Your task to perform on an android device: toggle location history Image 0: 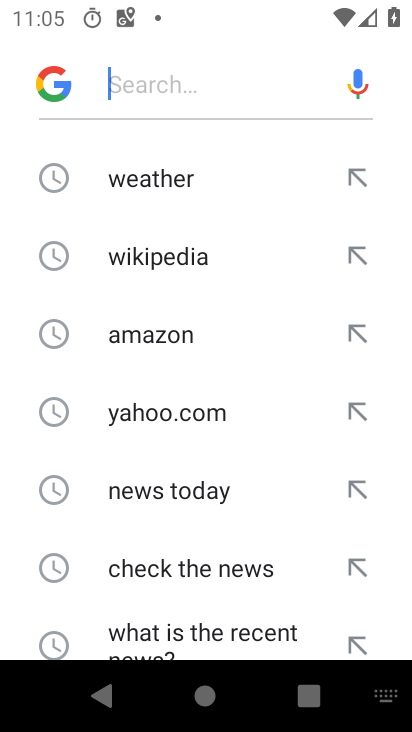
Step 0: press home button
Your task to perform on an android device: toggle location history Image 1: 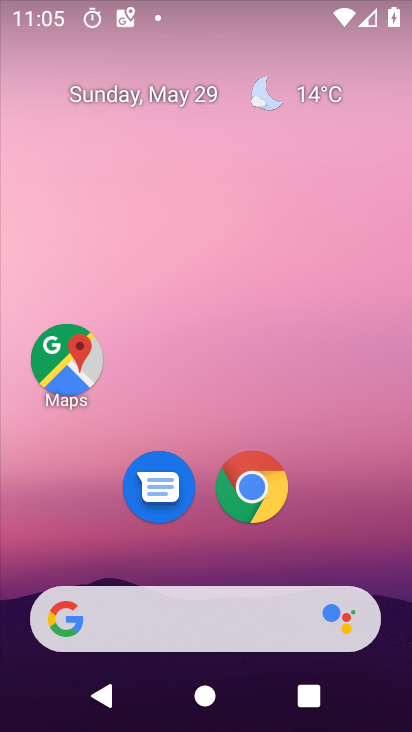
Step 1: drag from (395, 690) to (352, 136)
Your task to perform on an android device: toggle location history Image 2: 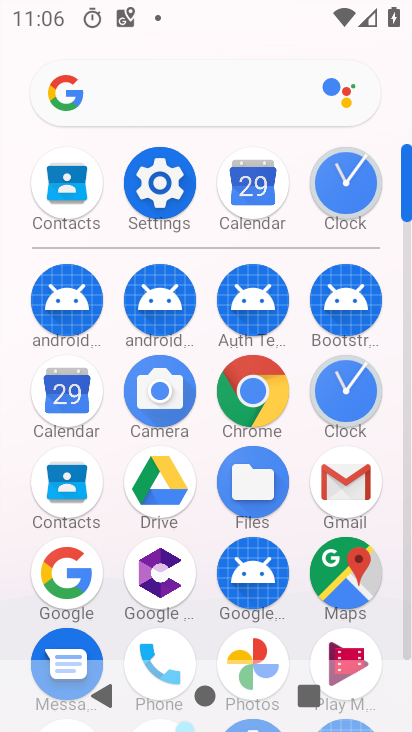
Step 2: click (159, 194)
Your task to perform on an android device: toggle location history Image 3: 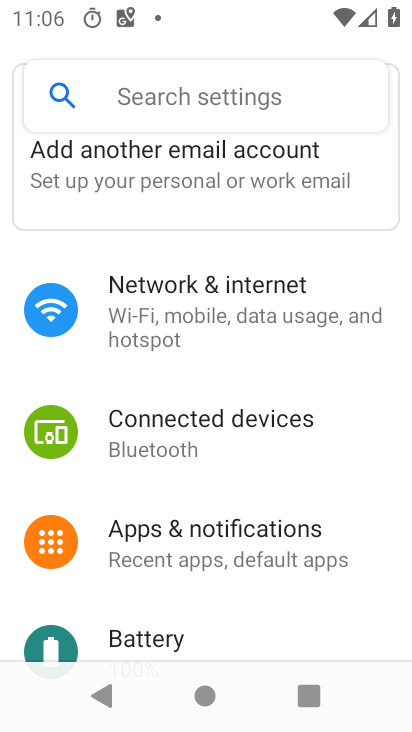
Step 3: drag from (202, 610) to (212, 276)
Your task to perform on an android device: toggle location history Image 4: 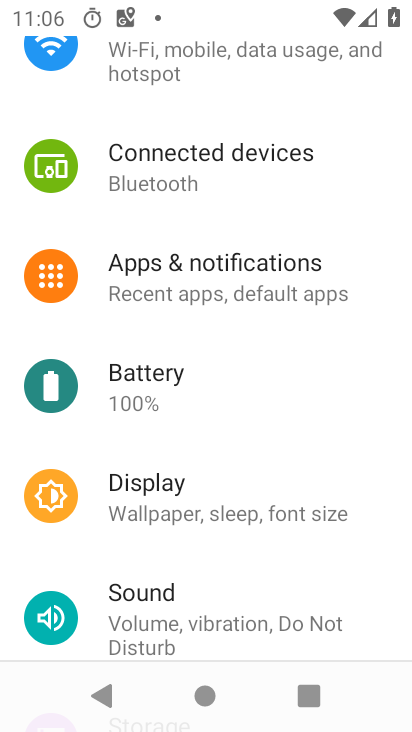
Step 4: drag from (209, 621) to (228, 289)
Your task to perform on an android device: toggle location history Image 5: 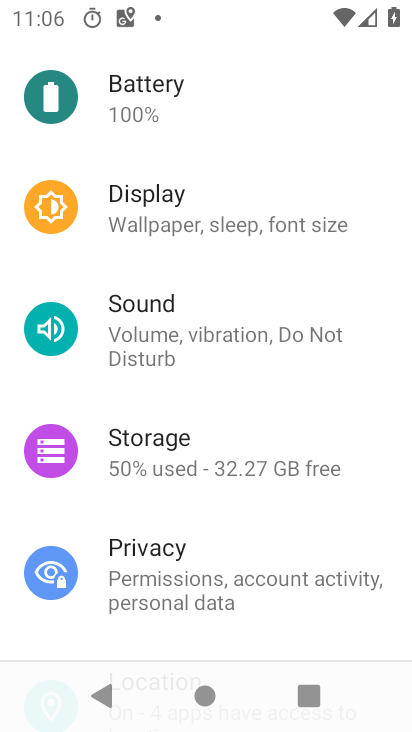
Step 5: drag from (189, 422) to (190, 261)
Your task to perform on an android device: toggle location history Image 6: 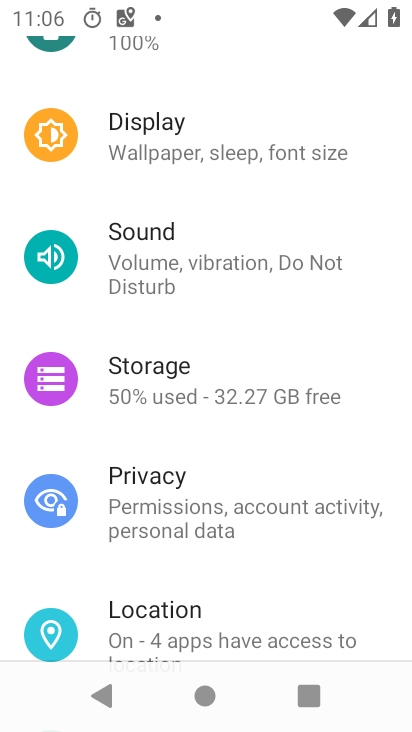
Step 6: click (170, 606)
Your task to perform on an android device: toggle location history Image 7: 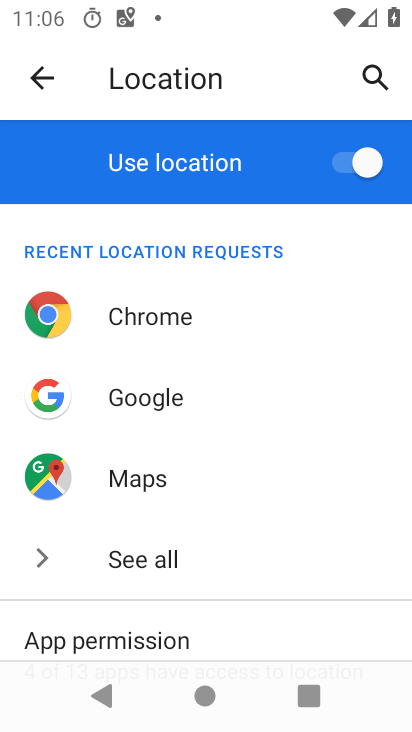
Step 7: drag from (248, 604) to (223, 292)
Your task to perform on an android device: toggle location history Image 8: 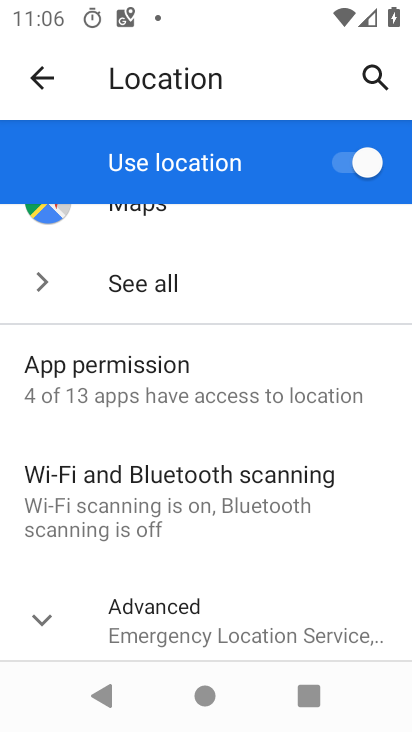
Step 8: drag from (234, 609) to (236, 325)
Your task to perform on an android device: toggle location history Image 9: 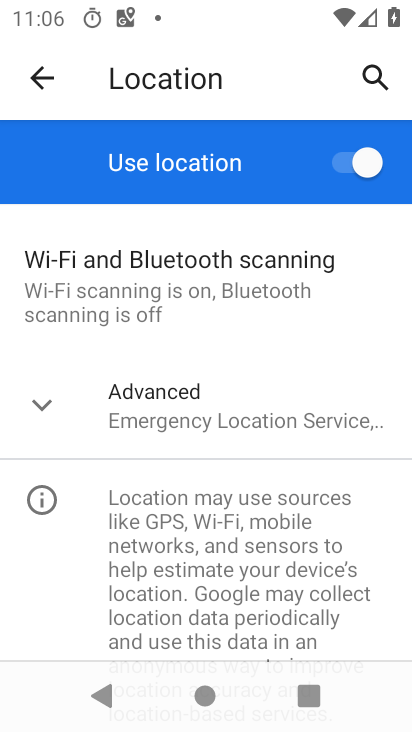
Step 9: drag from (146, 619) to (163, 375)
Your task to perform on an android device: toggle location history Image 10: 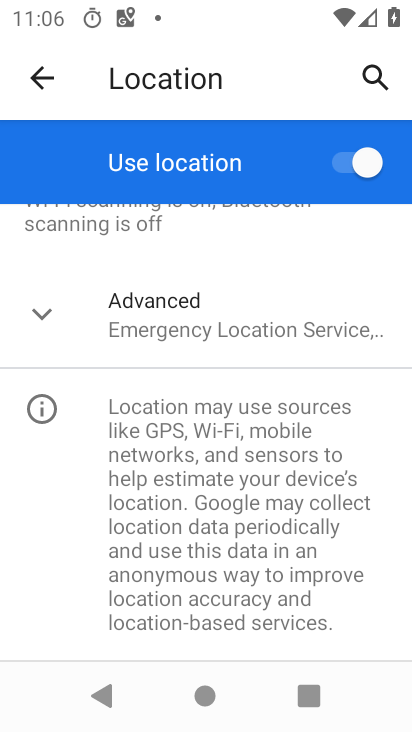
Step 10: click (34, 319)
Your task to perform on an android device: toggle location history Image 11: 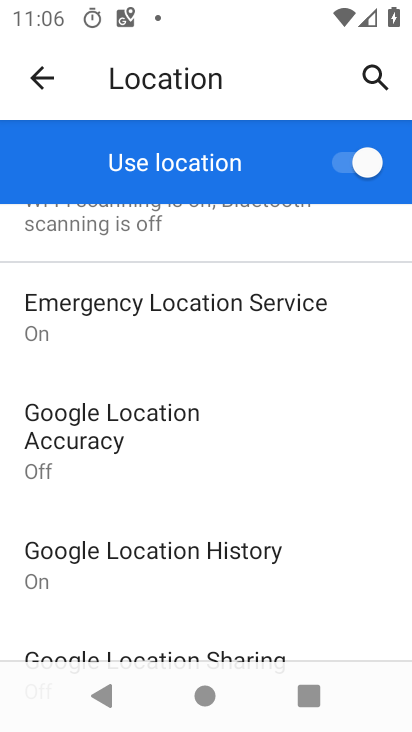
Step 11: click (183, 555)
Your task to perform on an android device: toggle location history Image 12: 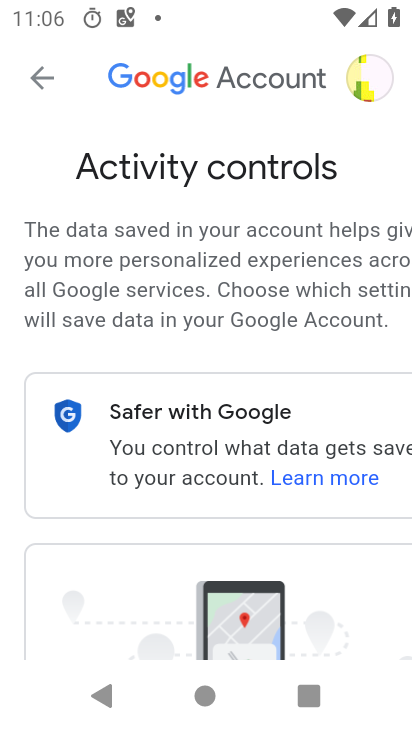
Step 12: drag from (323, 633) to (299, 145)
Your task to perform on an android device: toggle location history Image 13: 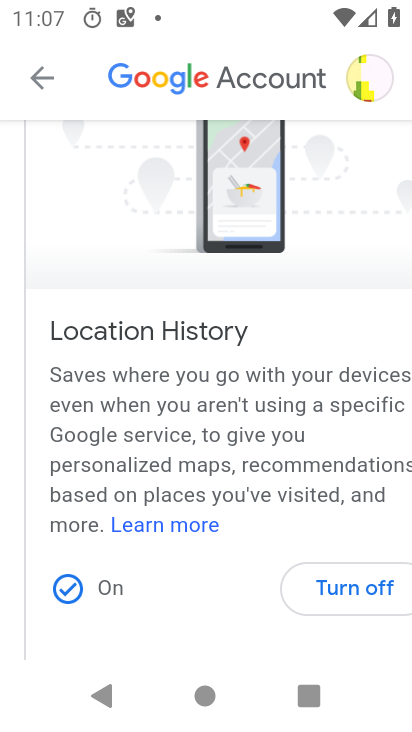
Step 13: click (324, 575)
Your task to perform on an android device: toggle location history Image 14: 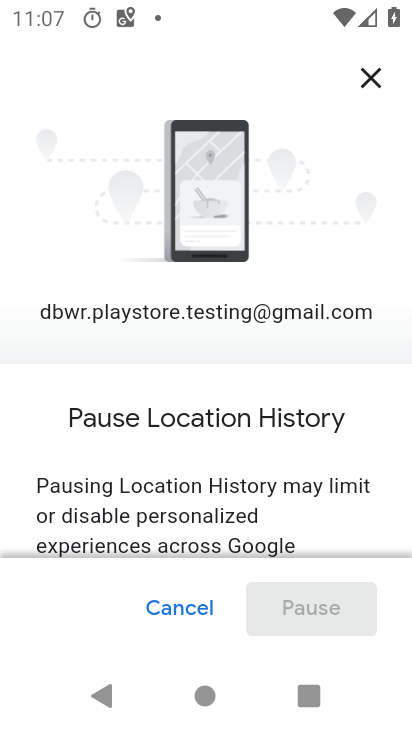
Step 14: drag from (247, 533) to (226, 123)
Your task to perform on an android device: toggle location history Image 15: 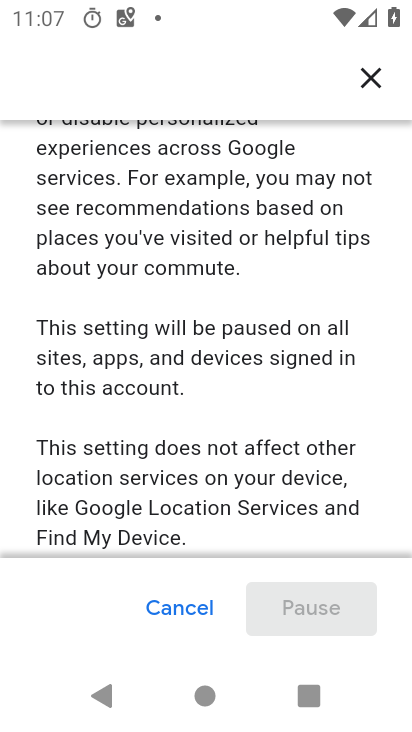
Step 15: drag from (240, 533) to (230, 181)
Your task to perform on an android device: toggle location history Image 16: 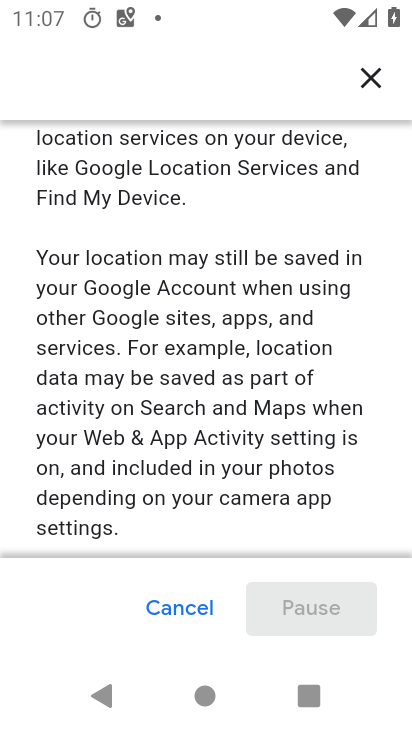
Step 16: drag from (214, 515) to (212, 196)
Your task to perform on an android device: toggle location history Image 17: 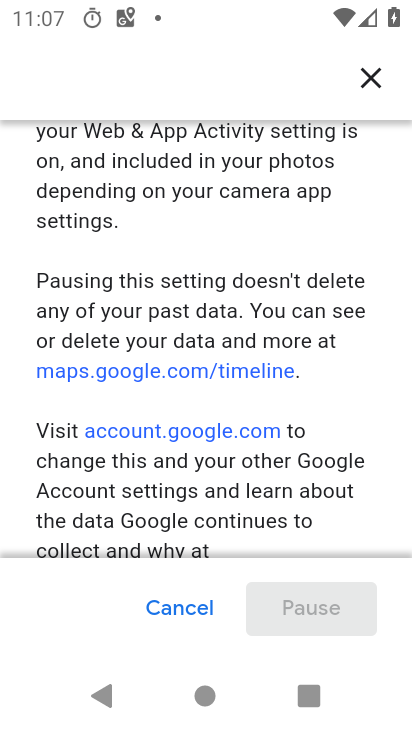
Step 17: drag from (232, 521) to (223, 200)
Your task to perform on an android device: toggle location history Image 18: 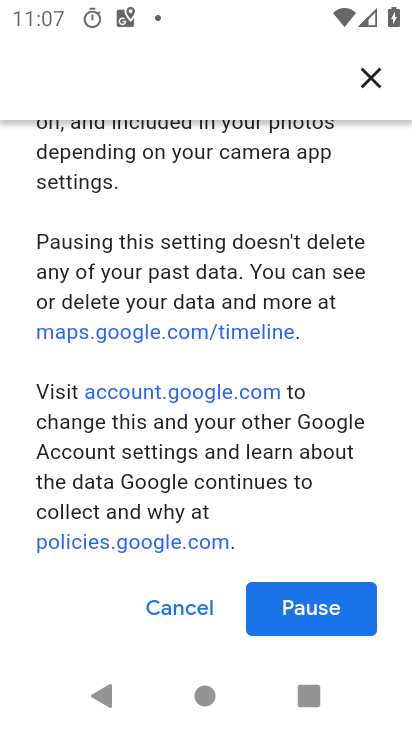
Step 18: click (302, 606)
Your task to perform on an android device: toggle location history Image 19: 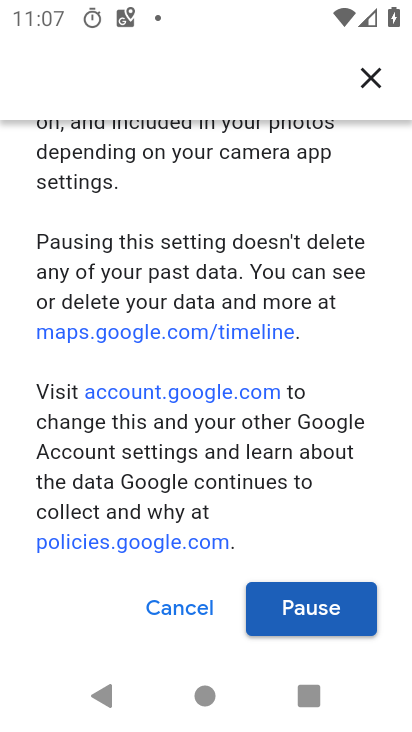
Step 19: click (298, 603)
Your task to perform on an android device: toggle location history Image 20: 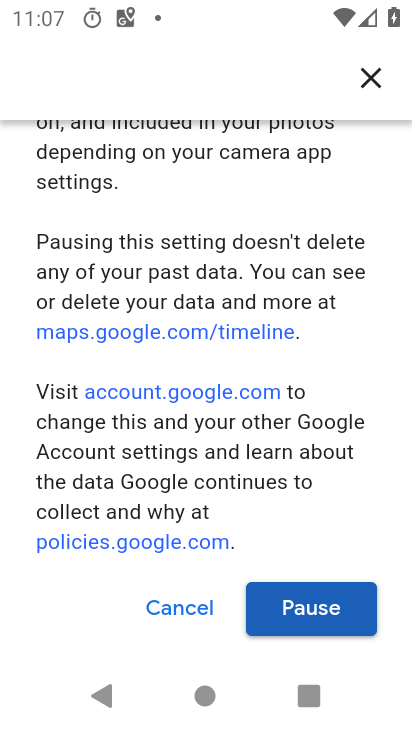
Step 20: click (299, 604)
Your task to perform on an android device: toggle location history Image 21: 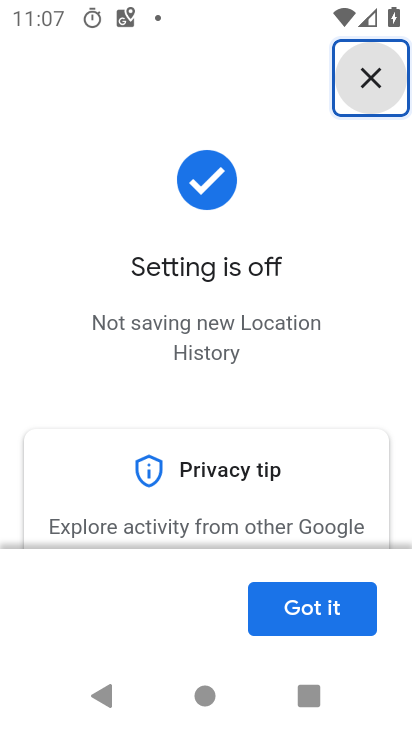
Step 21: click (299, 604)
Your task to perform on an android device: toggle location history Image 22: 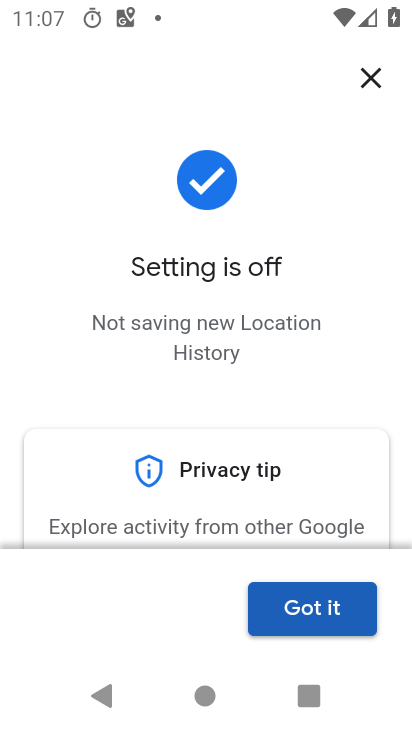
Step 22: click (285, 603)
Your task to perform on an android device: toggle location history Image 23: 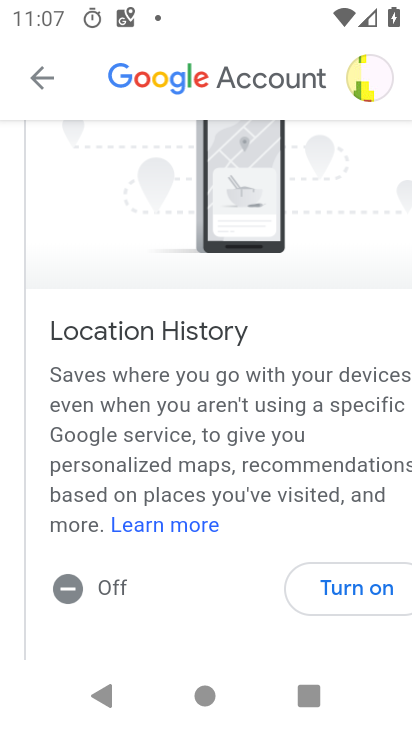
Step 23: task complete